Your task to perform on an android device: Open Google Maps and go to "Timeline" Image 0: 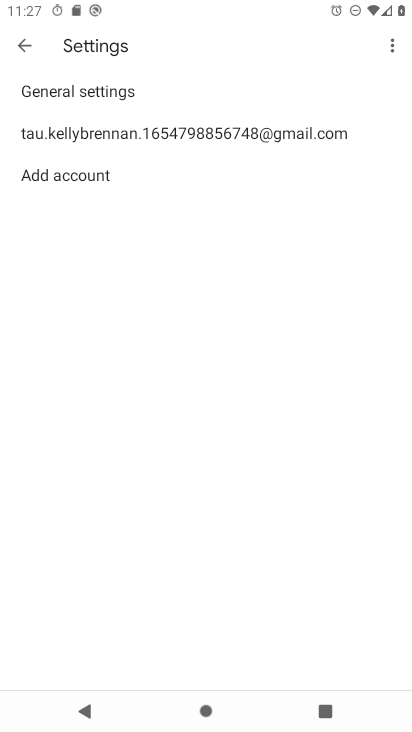
Step 0: press back button
Your task to perform on an android device: Open Google Maps and go to "Timeline" Image 1: 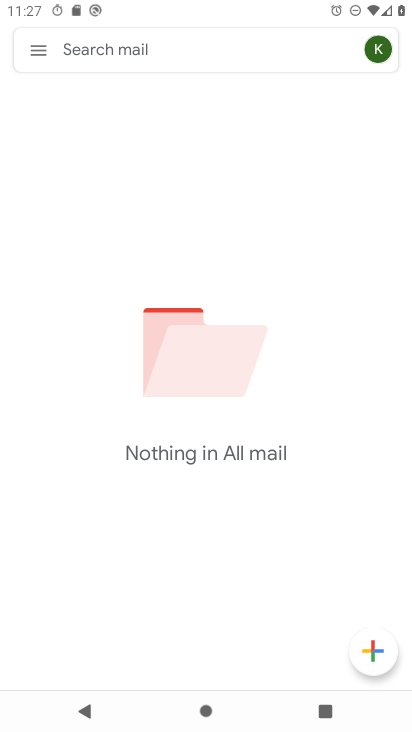
Step 1: press back button
Your task to perform on an android device: Open Google Maps and go to "Timeline" Image 2: 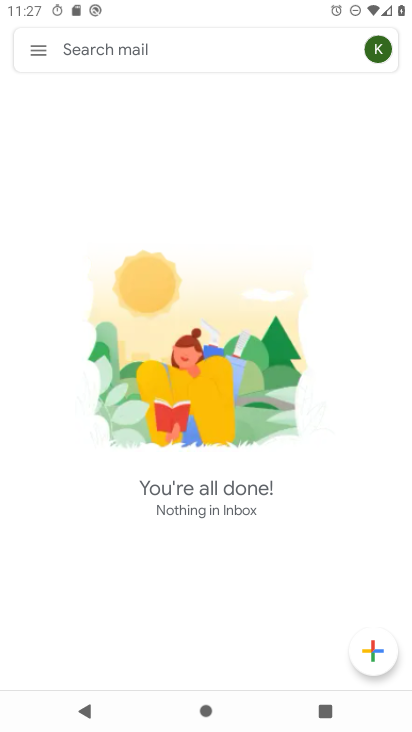
Step 2: press back button
Your task to perform on an android device: Open Google Maps and go to "Timeline" Image 3: 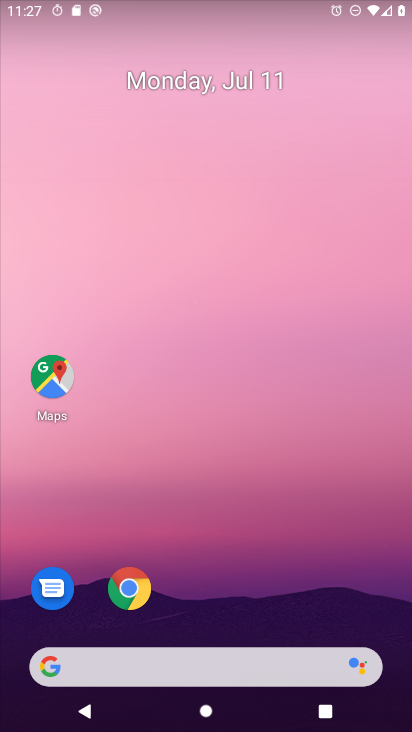
Step 3: click (45, 370)
Your task to perform on an android device: Open Google Maps and go to "Timeline" Image 4: 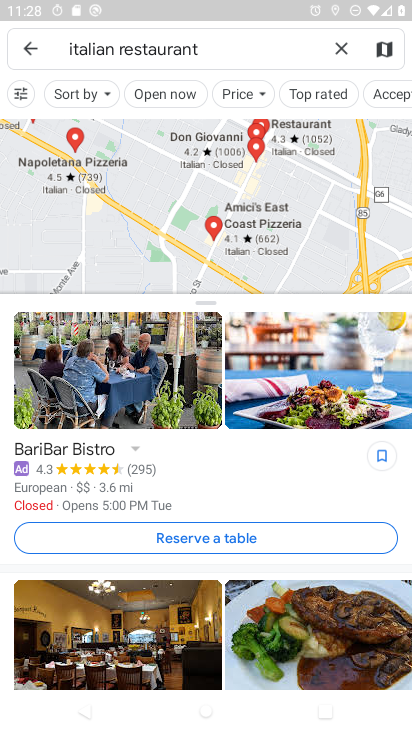
Step 4: click (40, 45)
Your task to perform on an android device: Open Google Maps and go to "Timeline" Image 5: 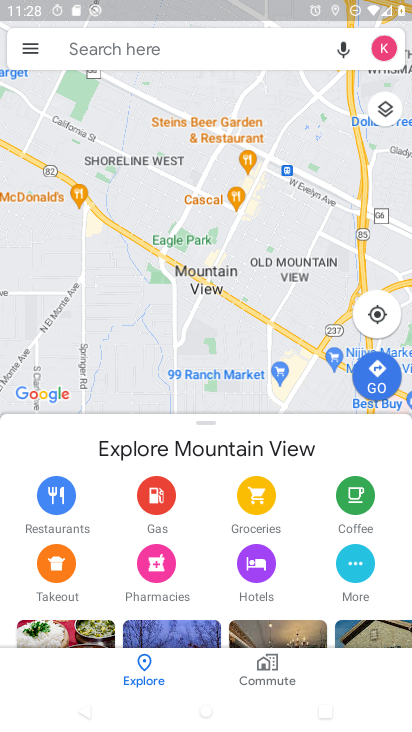
Step 5: click (37, 45)
Your task to perform on an android device: Open Google Maps and go to "Timeline" Image 6: 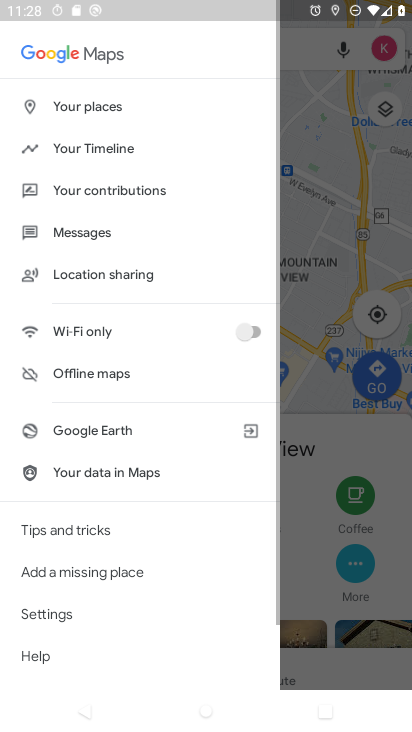
Step 6: click (115, 150)
Your task to perform on an android device: Open Google Maps and go to "Timeline" Image 7: 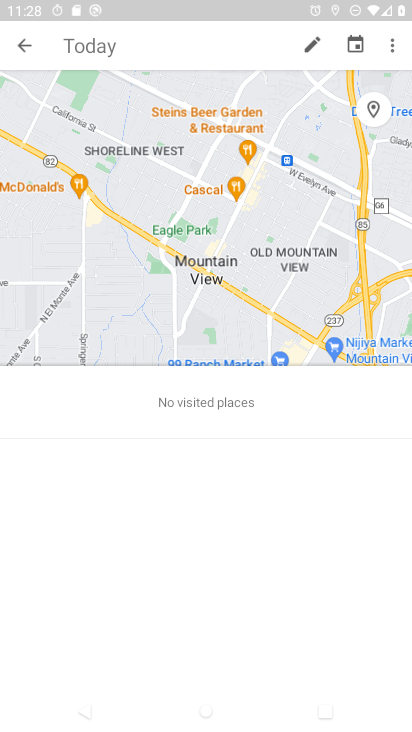
Step 7: task complete